Your task to perform on an android device: check data usage Image 0: 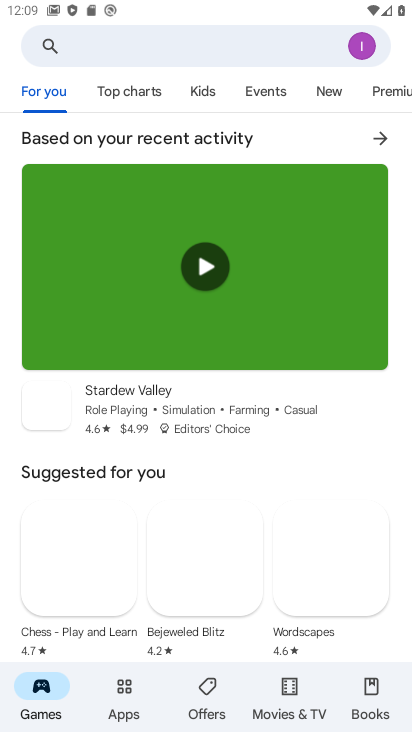
Step 0: press home button
Your task to perform on an android device: check data usage Image 1: 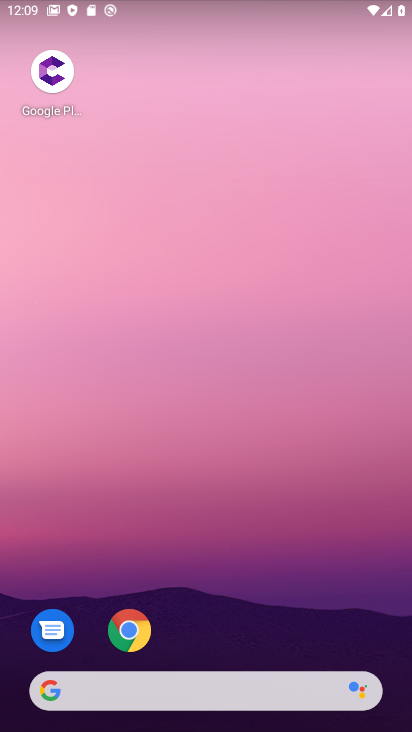
Step 1: drag from (223, 584) to (236, 143)
Your task to perform on an android device: check data usage Image 2: 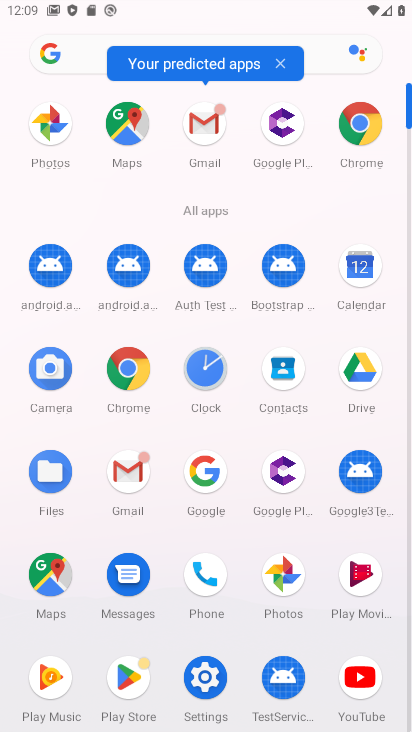
Step 2: click (209, 675)
Your task to perform on an android device: check data usage Image 3: 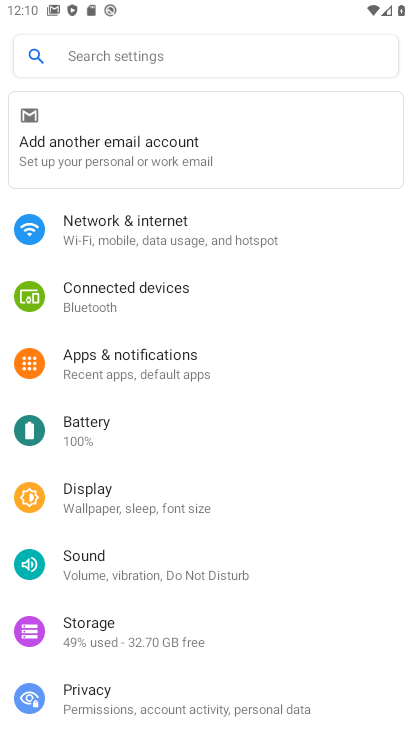
Step 3: click (97, 225)
Your task to perform on an android device: check data usage Image 4: 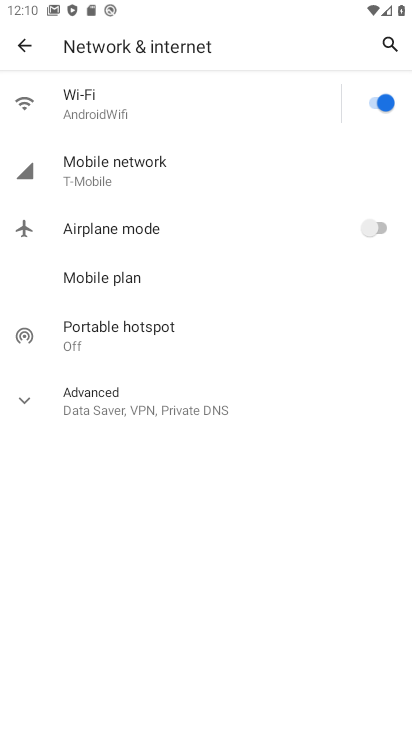
Step 4: click (84, 162)
Your task to perform on an android device: check data usage Image 5: 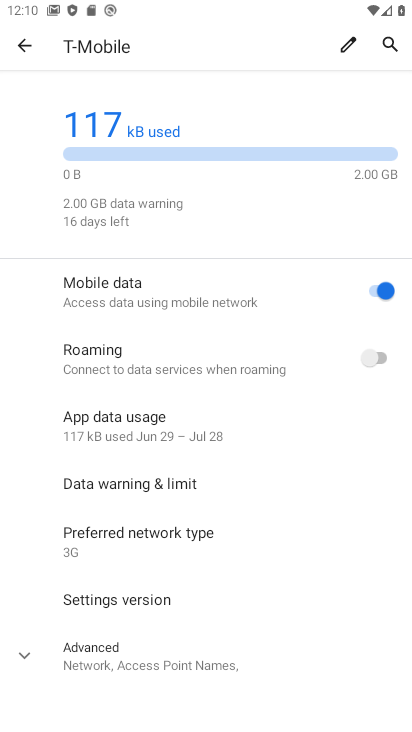
Step 5: task complete